Your task to perform on an android device: Toggle the flashlight Image 0: 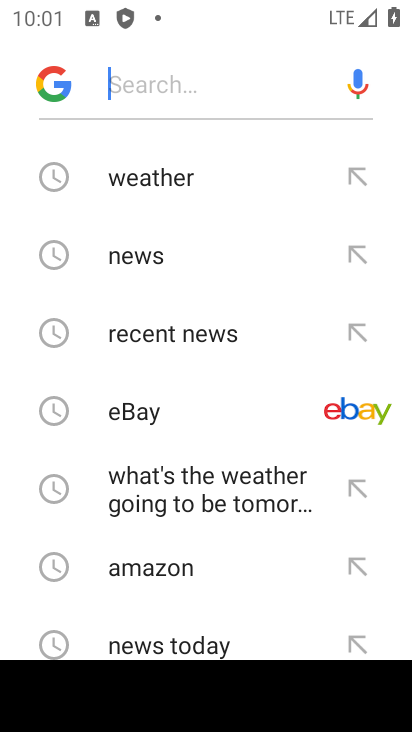
Step 0: press home button
Your task to perform on an android device: Toggle the flashlight Image 1: 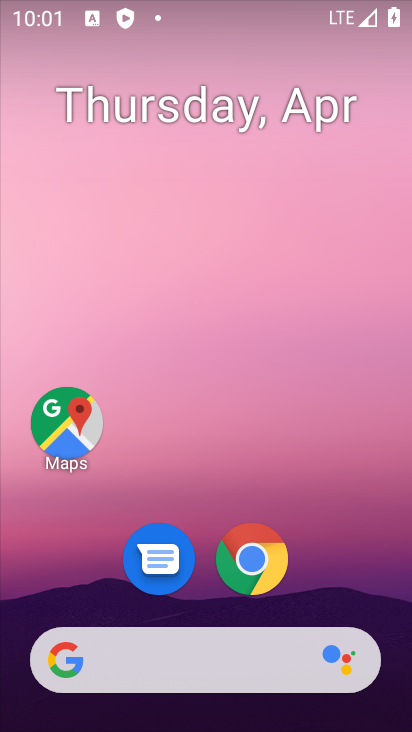
Step 1: task complete